Your task to perform on an android device: find snoozed emails in the gmail app Image 0: 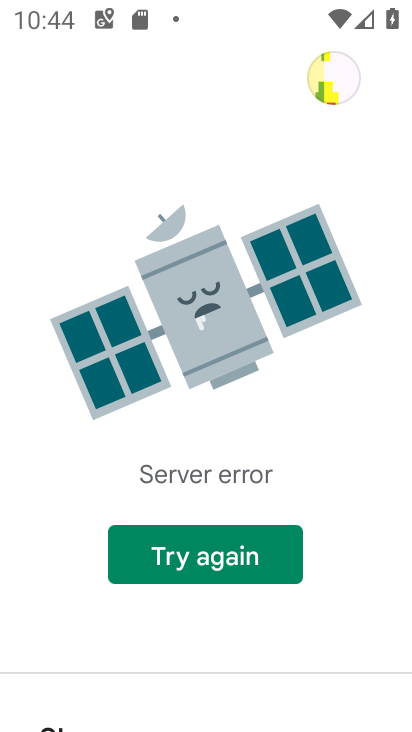
Step 0: press home button
Your task to perform on an android device: find snoozed emails in the gmail app Image 1: 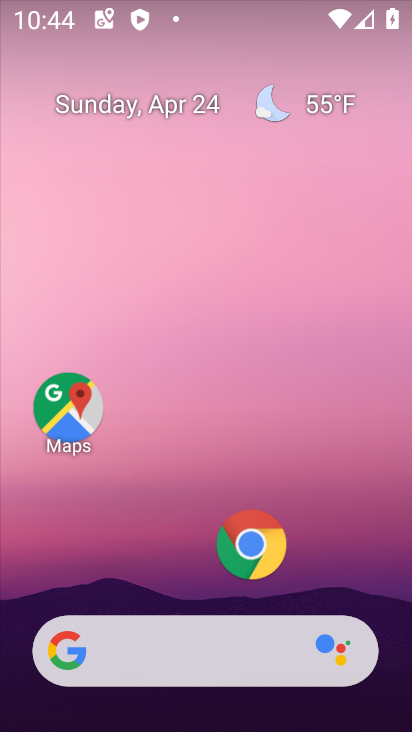
Step 1: drag from (192, 527) to (222, 139)
Your task to perform on an android device: find snoozed emails in the gmail app Image 2: 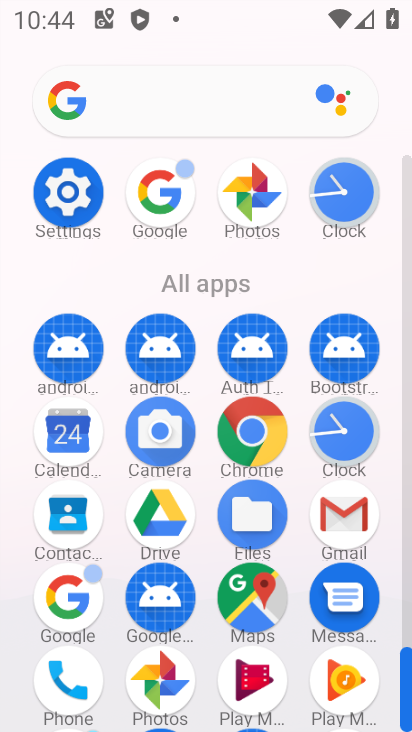
Step 2: click (342, 540)
Your task to perform on an android device: find snoozed emails in the gmail app Image 3: 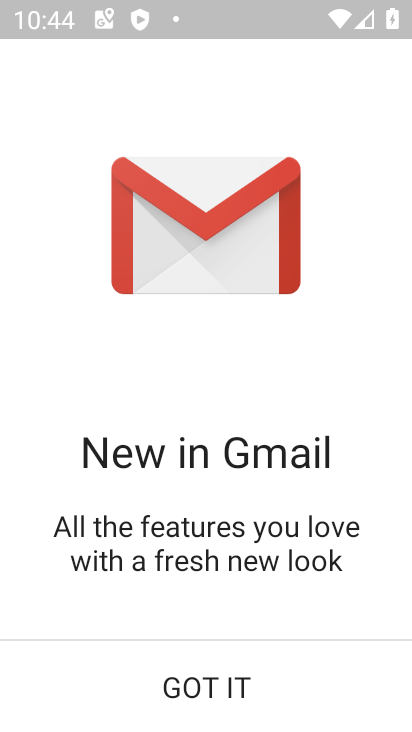
Step 3: click (195, 669)
Your task to perform on an android device: find snoozed emails in the gmail app Image 4: 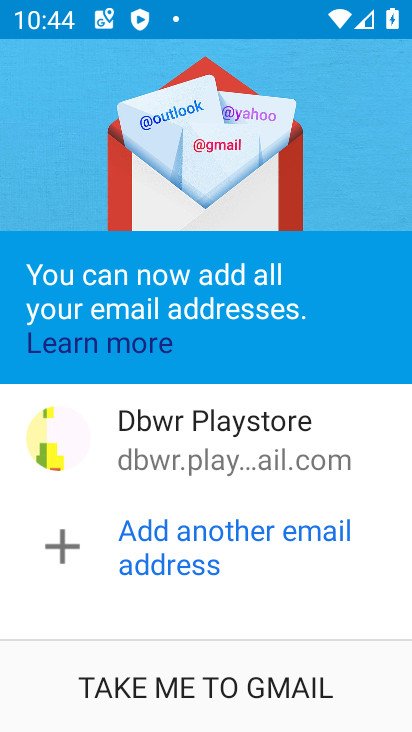
Step 4: click (272, 692)
Your task to perform on an android device: find snoozed emails in the gmail app Image 5: 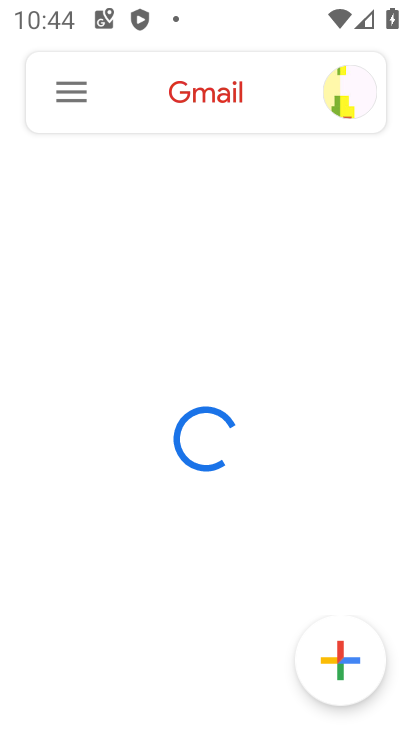
Step 5: click (75, 89)
Your task to perform on an android device: find snoozed emails in the gmail app Image 6: 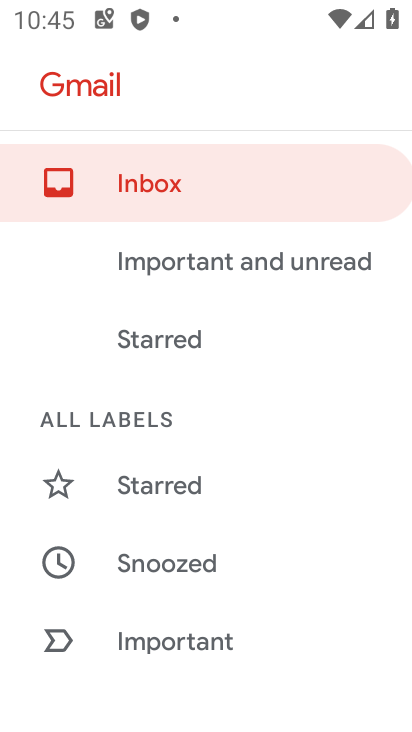
Step 6: click (202, 557)
Your task to perform on an android device: find snoozed emails in the gmail app Image 7: 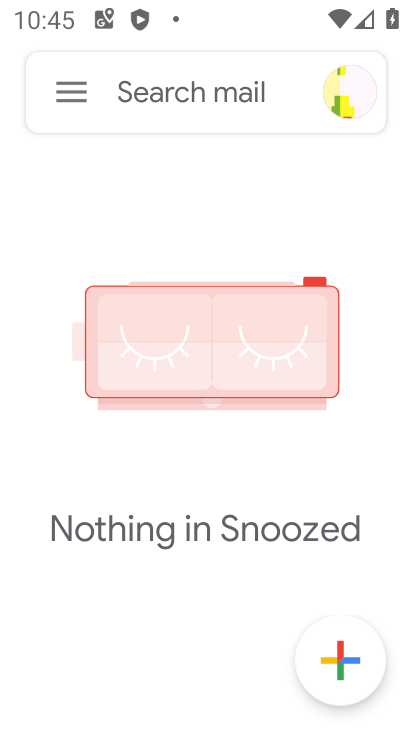
Step 7: task complete